Your task to perform on an android device: Do I have any events tomorrow? Image 0: 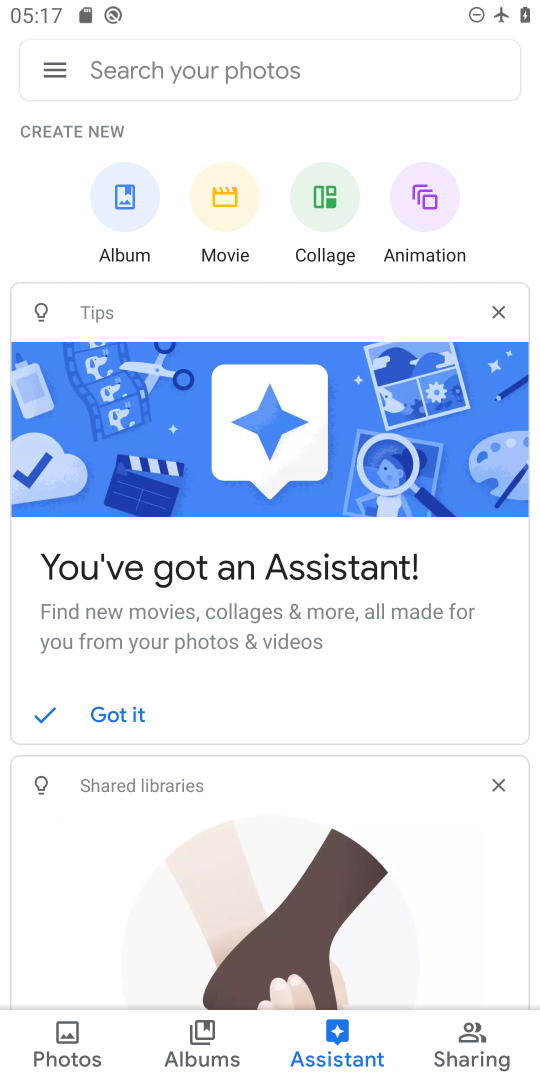
Step 0: press home button
Your task to perform on an android device: Do I have any events tomorrow? Image 1: 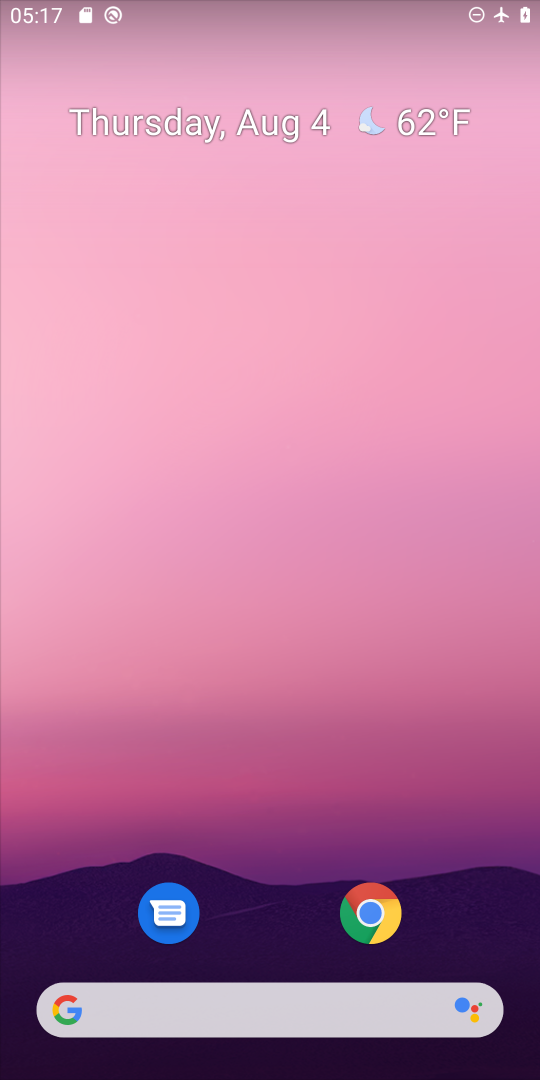
Step 1: drag from (165, 995) to (86, 328)
Your task to perform on an android device: Do I have any events tomorrow? Image 2: 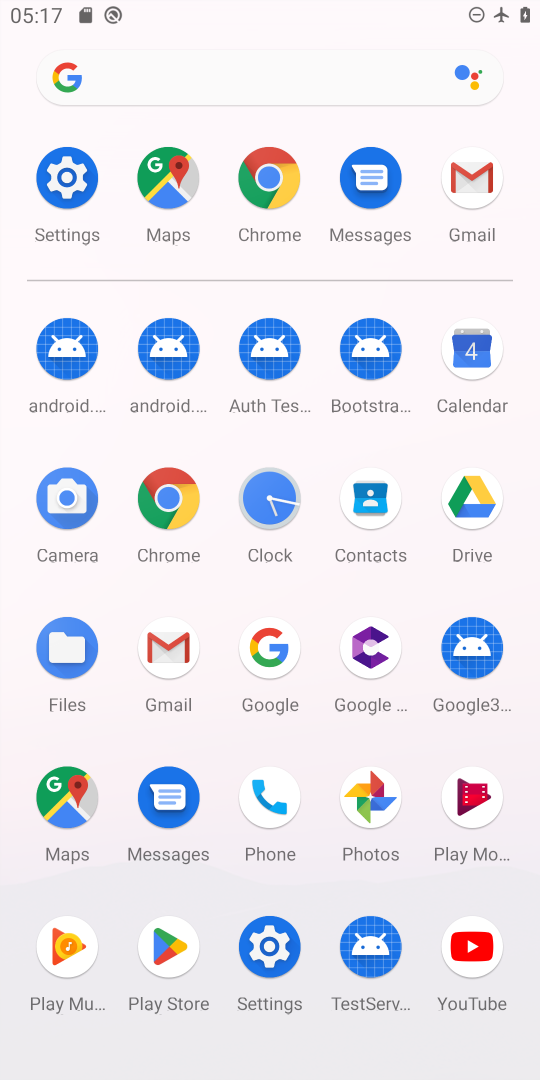
Step 2: click (463, 363)
Your task to perform on an android device: Do I have any events tomorrow? Image 3: 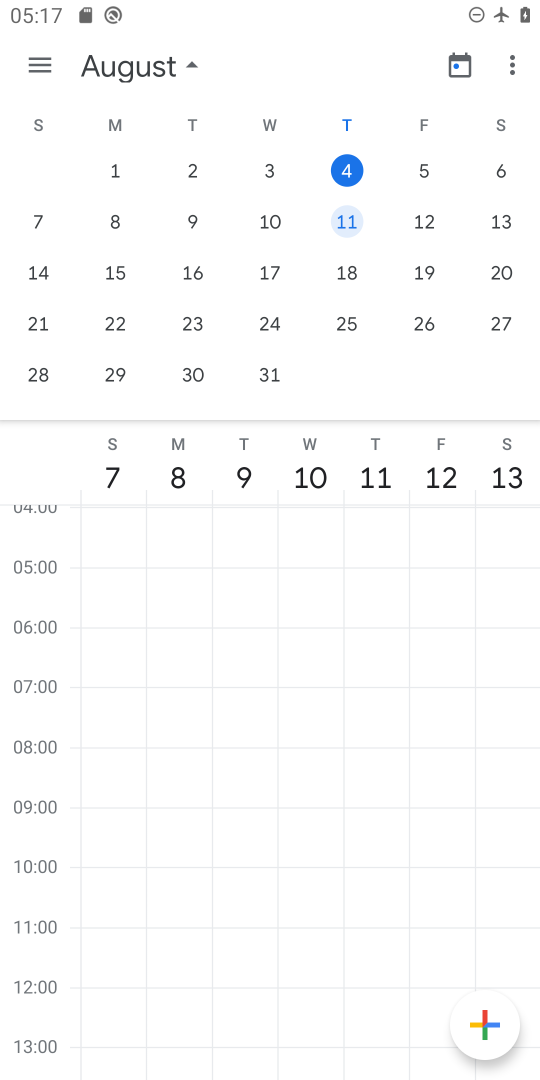
Step 3: click (419, 166)
Your task to perform on an android device: Do I have any events tomorrow? Image 4: 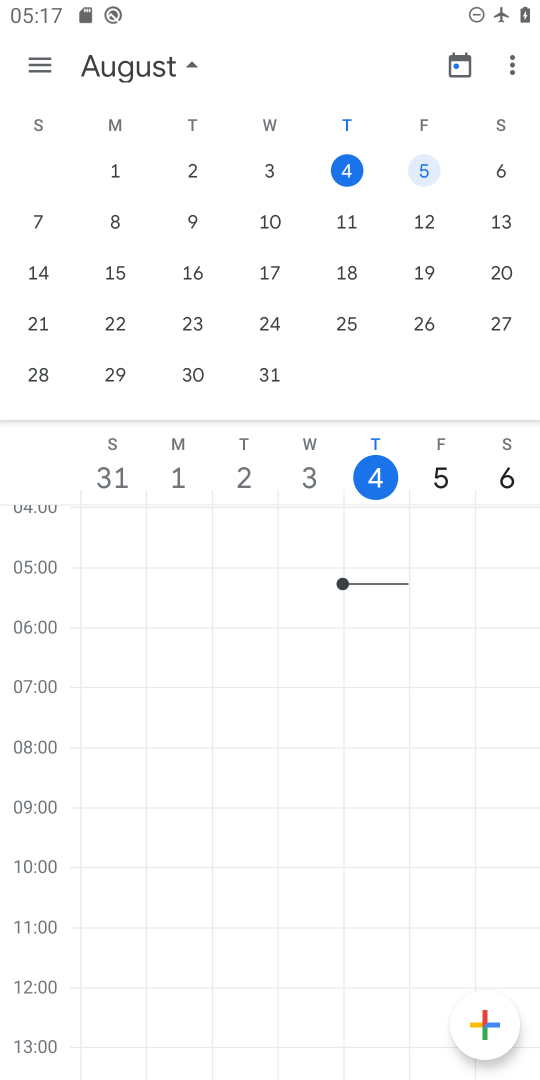
Step 4: task complete